Your task to perform on an android device: open a bookmark in the chrome app Image 0: 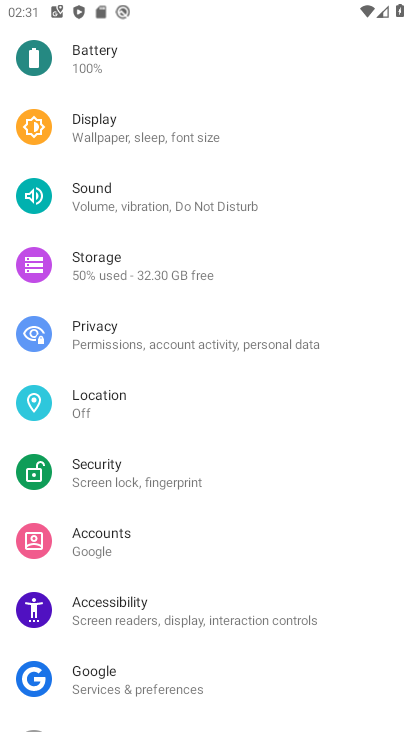
Step 0: press home button
Your task to perform on an android device: open a bookmark in the chrome app Image 1: 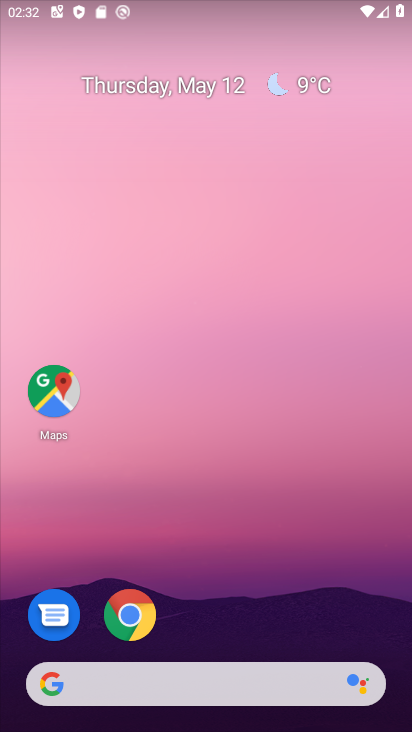
Step 1: click (128, 613)
Your task to perform on an android device: open a bookmark in the chrome app Image 2: 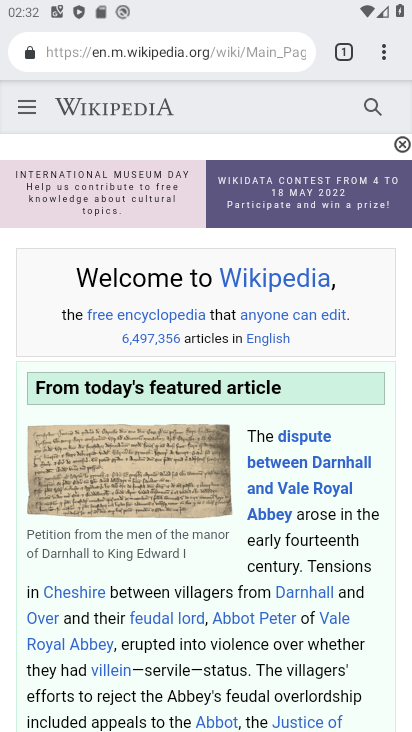
Step 2: task complete